Your task to perform on an android device: turn on translation in the chrome app Image 0: 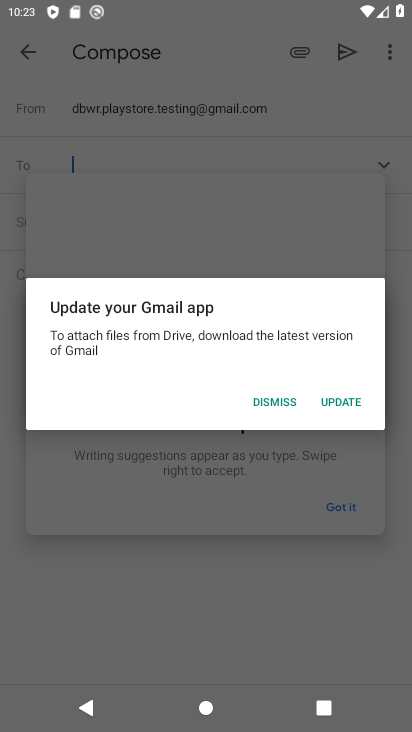
Step 0: press home button
Your task to perform on an android device: turn on translation in the chrome app Image 1: 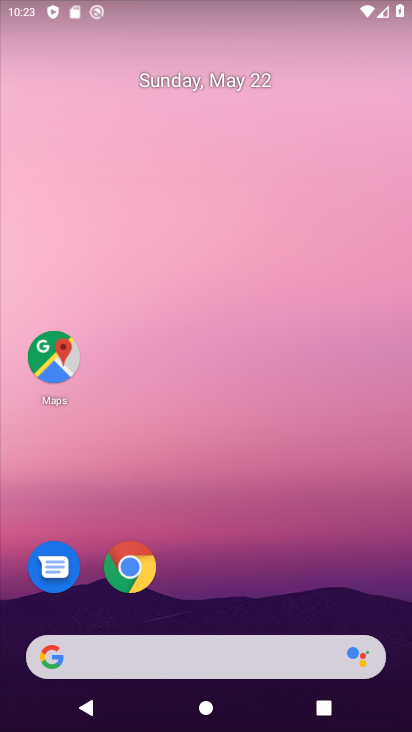
Step 1: click (128, 568)
Your task to perform on an android device: turn on translation in the chrome app Image 2: 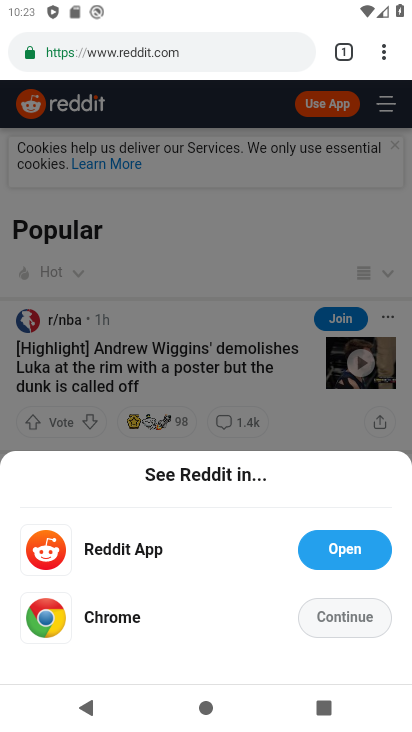
Step 2: click (390, 54)
Your task to perform on an android device: turn on translation in the chrome app Image 3: 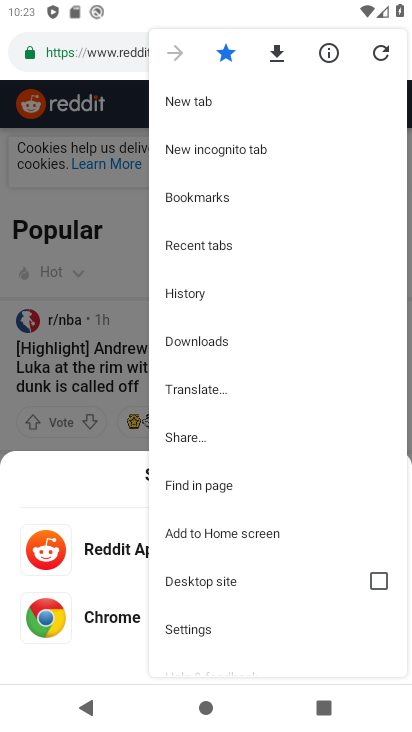
Step 3: drag from (277, 603) to (297, 186)
Your task to perform on an android device: turn on translation in the chrome app Image 4: 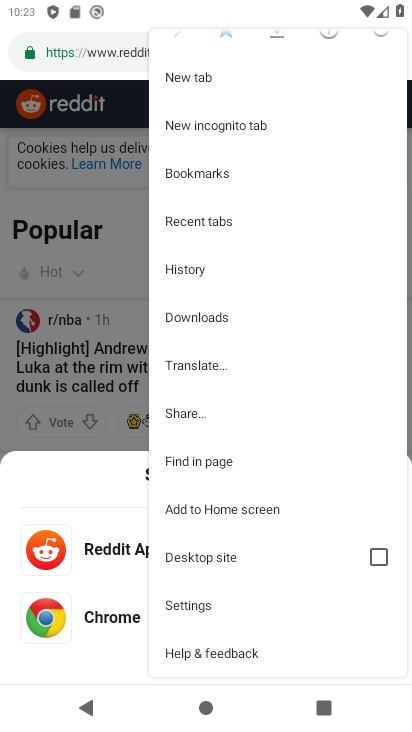
Step 4: click (192, 600)
Your task to perform on an android device: turn on translation in the chrome app Image 5: 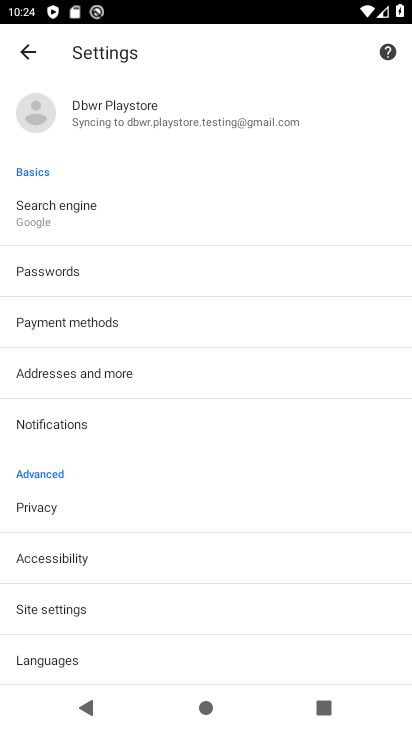
Step 5: drag from (106, 586) to (162, 269)
Your task to perform on an android device: turn on translation in the chrome app Image 6: 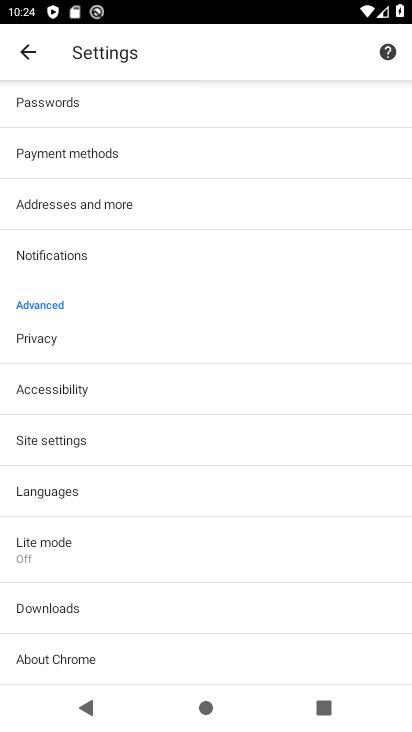
Step 6: click (54, 496)
Your task to perform on an android device: turn on translation in the chrome app Image 7: 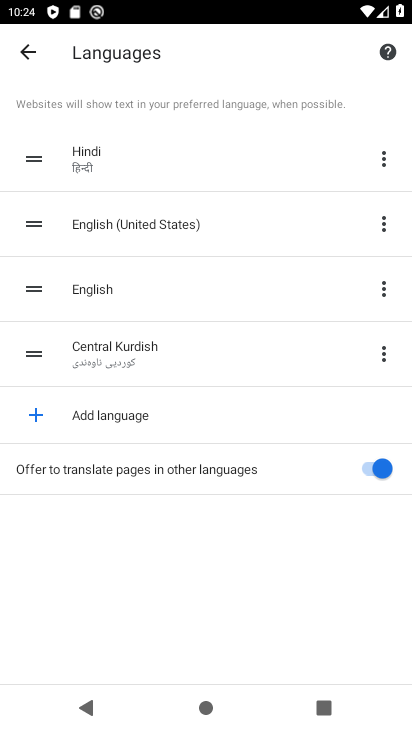
Step 7: task complete